Your task to perform on an android device: refresh tabs in the chrome app Image 0: 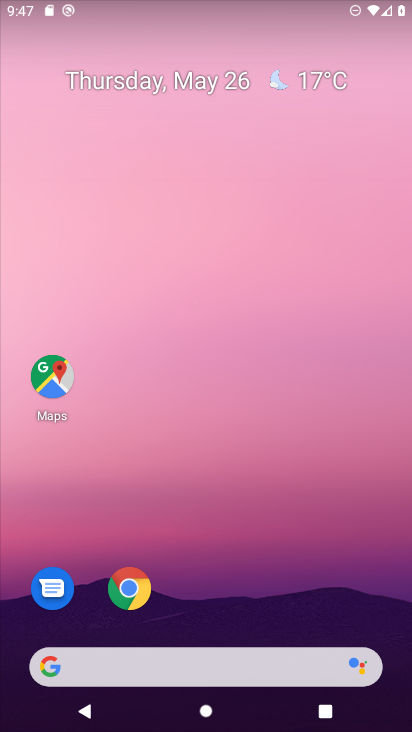
Step 0: click (129, 585)
Your task to perform on an android device: refresh tabs in the chrome app Image 1: 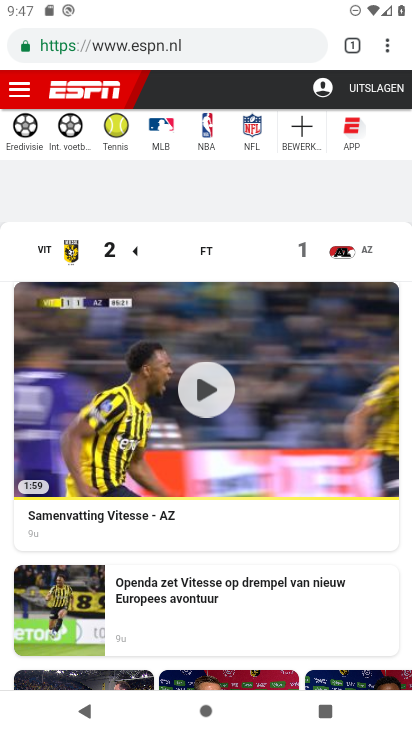
Step 1: click (384, 46)
Your task to perform on an android device: refresh tabs in the chrome app Image 2: 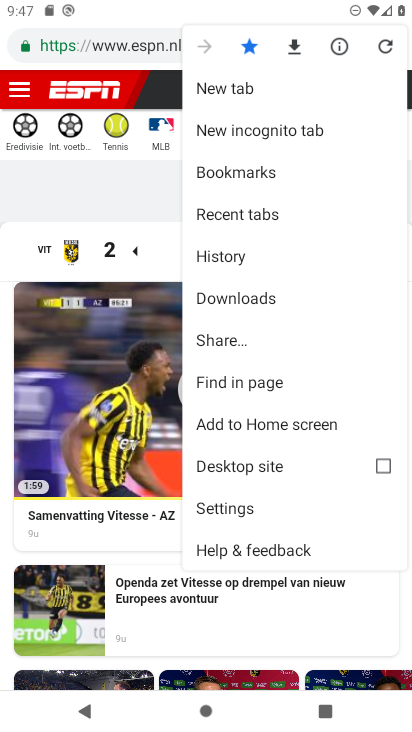
Step 2: click (383, 38)
Your task to perform on an android device: refresh tabs in the chrome app Image 3: 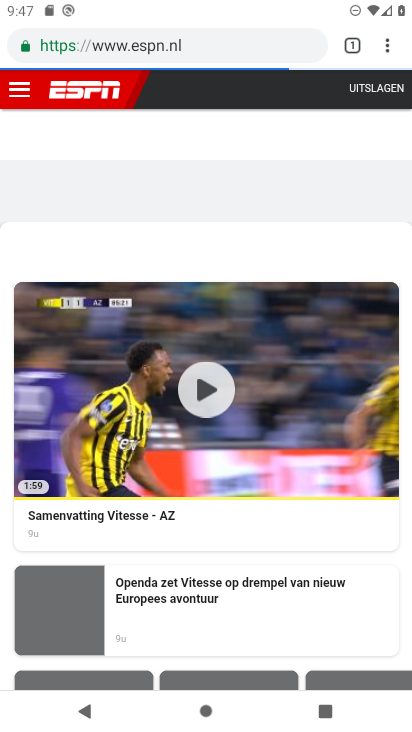
Step 3: task complete